Your task to perform on an android device: View the shopping cart on bestbuy. Search for "macbook air" on bestbuy, select the first entry, and add it to the cart. Image 0: 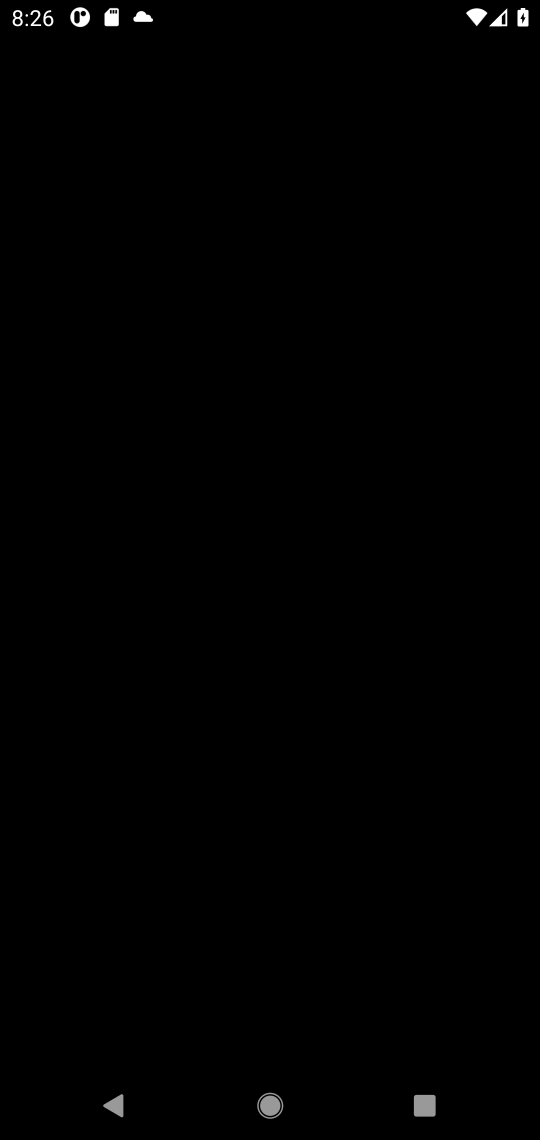
Step 0: press home button
Your task to perform on an android device: View the shopping cart on bestbuy. Search for "macbook air" on bestbuy, select the first entry, and add it to the cart. Image 1: 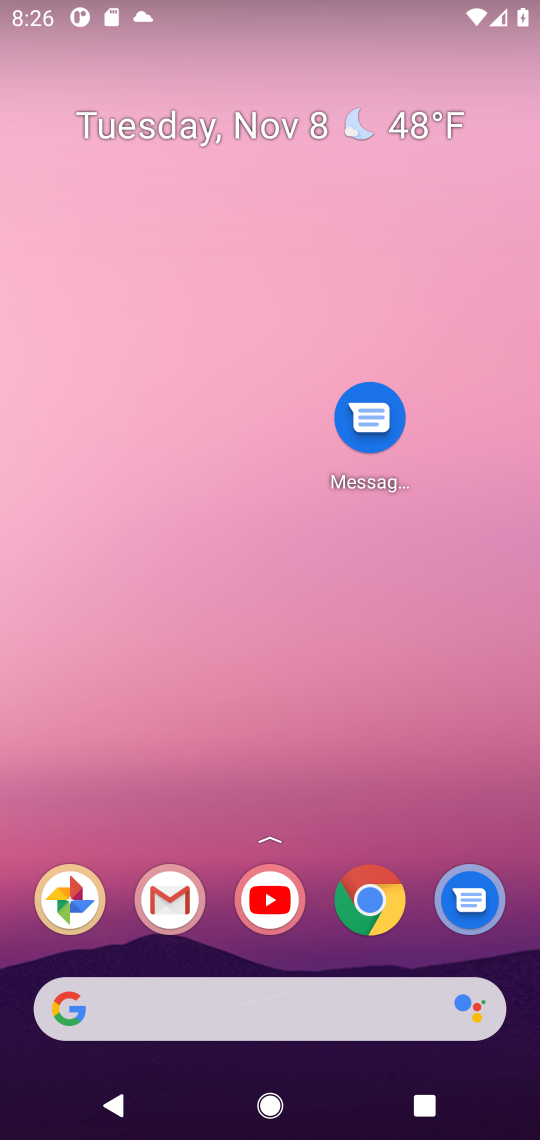
Step 1: drag from (180, 1063) to (247, 493)
Your task to perform on an android device: View the shopping cart on bestbuy. Search for "macbook air" on bestbuy, select the first entry, and add it to the cart. Image 2: 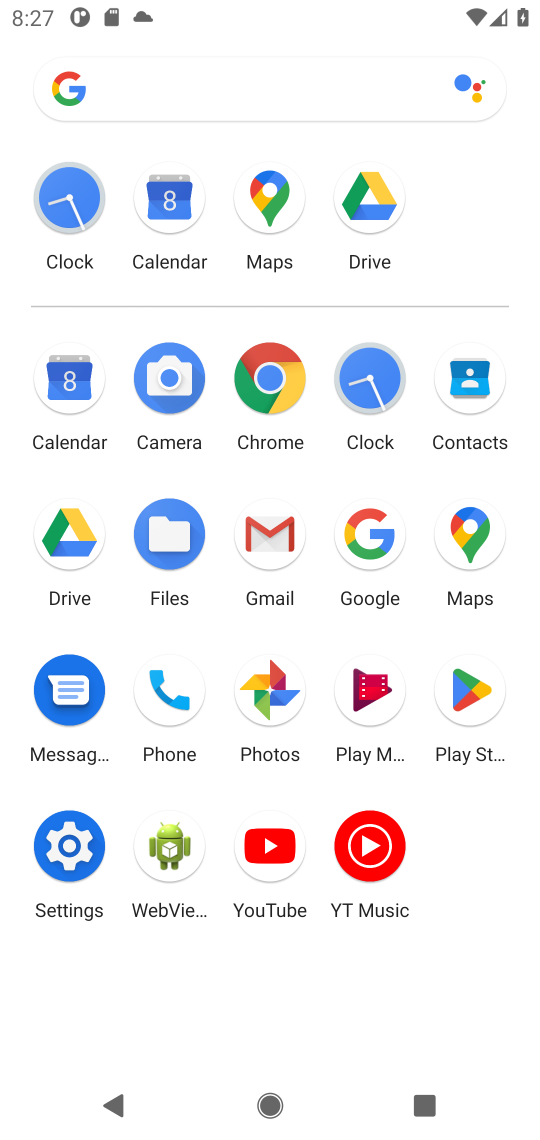
Step 2: click (355, 524)
Your task to perform on an android device: View the shopping cart on bestbuy. Search for "macbook air" on bestbuy, select the first entry, and add it to the cart. Image 3: 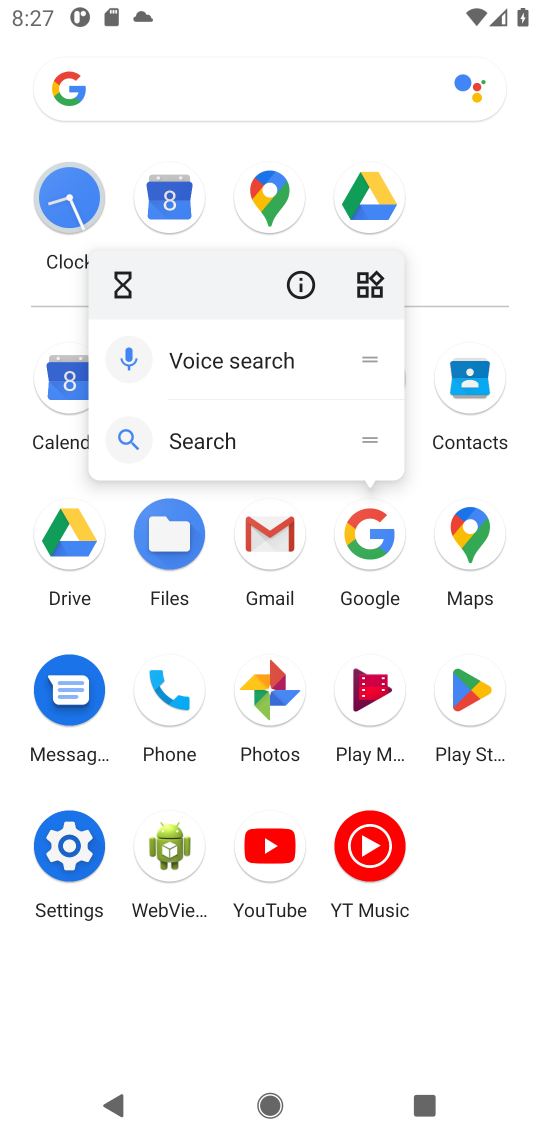
Step 3: click (366, 526)
Your task to perform on an android device: View the shopping cart on bestbuy. Search for "macbook air" on bestbuy, select the first entry, and add it to the cart. Image 4: 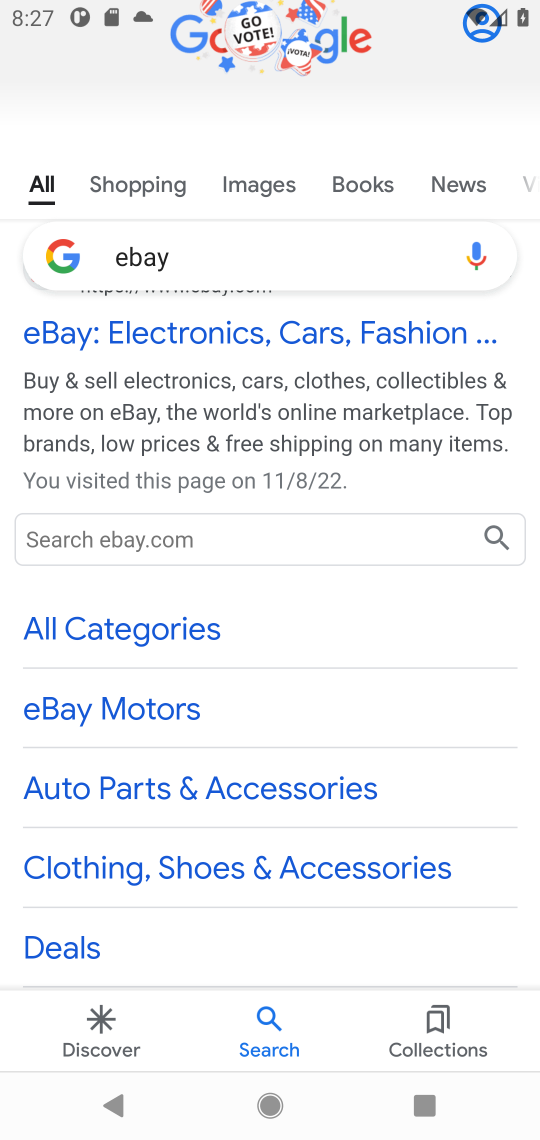
Step 4: click (182, 222)
Your task to perform on an android device: View the shopping cart on bestbuy. Search for "macbook air" on bestbuy, select the first entry, and add it to the cart. Image 5: 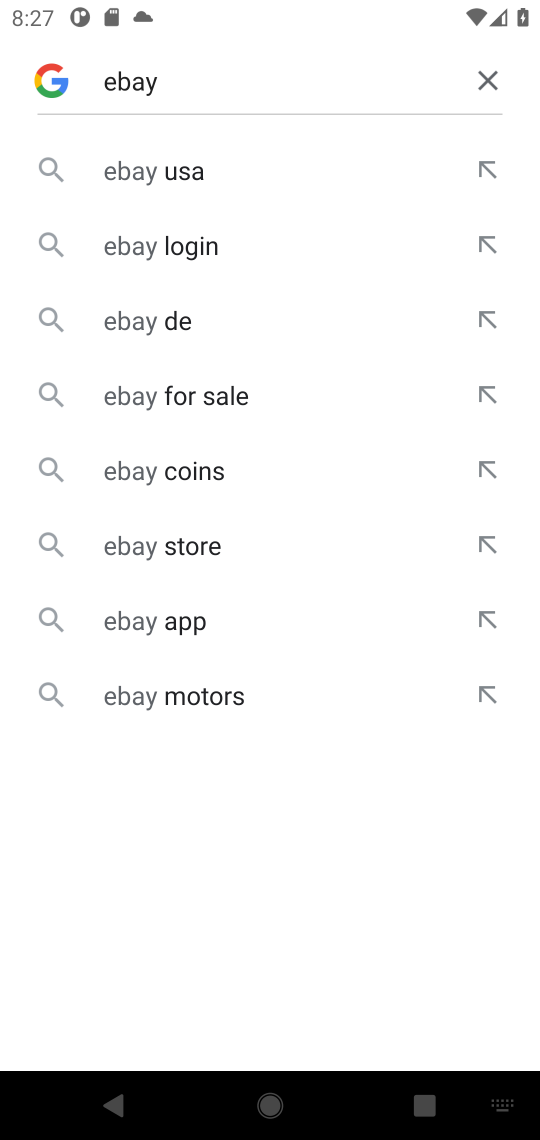
Step 5: click (484, 70)
Your task to perform on an android device: View the shopping cart on bestbuy. Search for "macbook air" on bestbuy, select the first entry, and add it to the cart. Image 6: 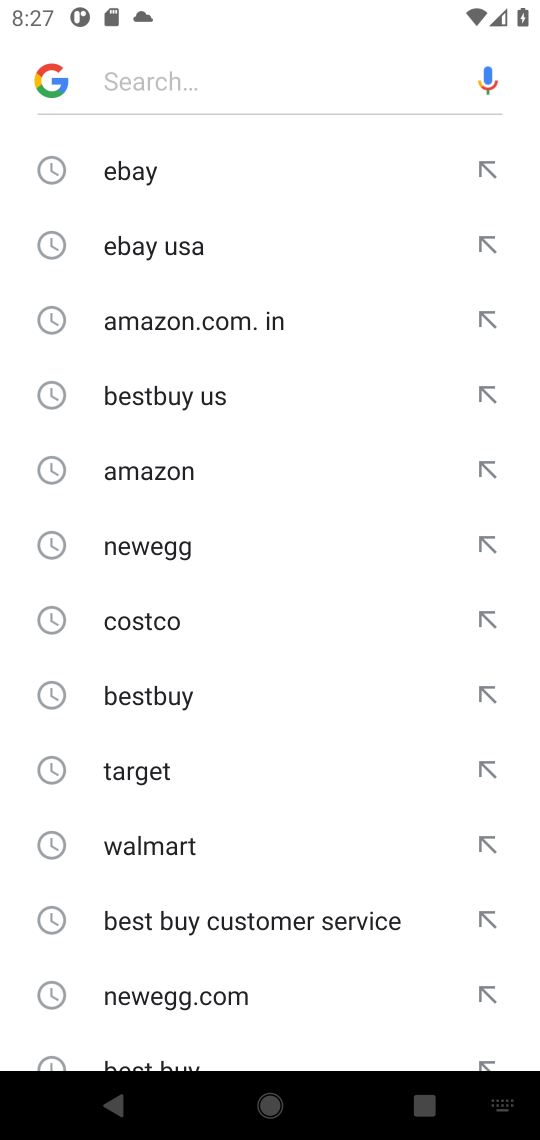
Step 6: click (193, 48)
Your task to perform on an android device: View the shopping cart on bestbuy. Search for "macbook air" on bestbuy, select the first entry, and add it to the cart. Image 7: 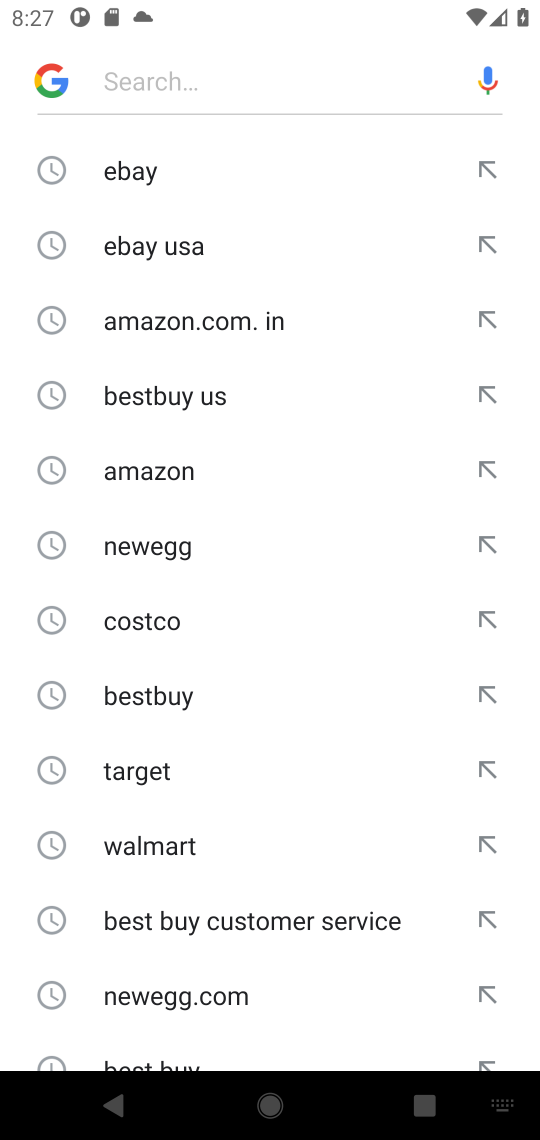
Step 7: type "bestbuy "
Your task to perform on an android device: View the shopping cart on bestbuy. Search for "macbook air" on bestbuy, select the first entry, and add it to the cart. Image 8: 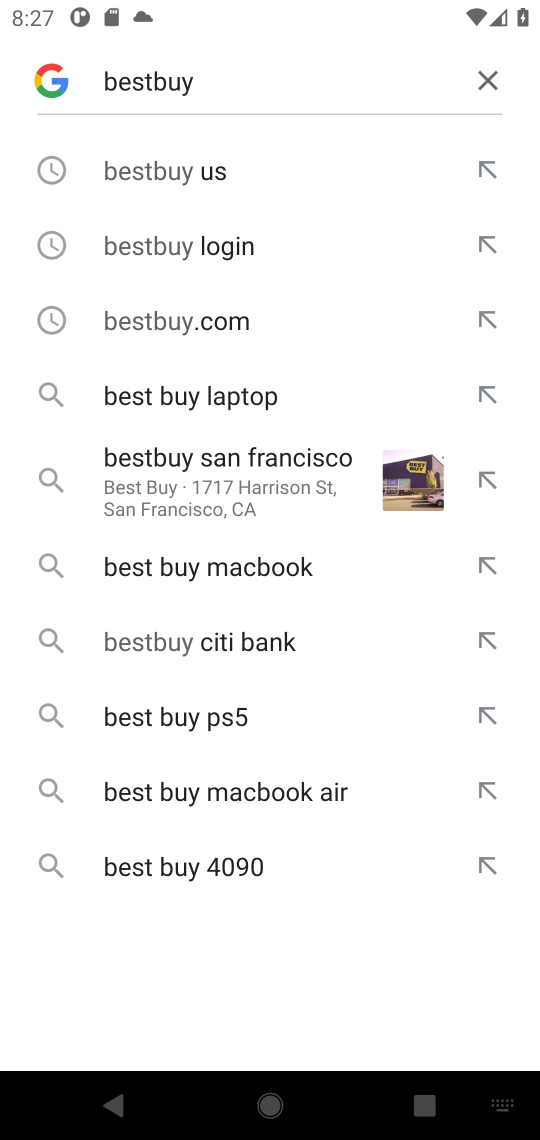
Step 8: click (212, 166)
Your task to perform on an android device: View the shopping cart on bestbuy. Search for "macbook air" on bestbuy, select the first entry, and add it to the cart. Image 9: 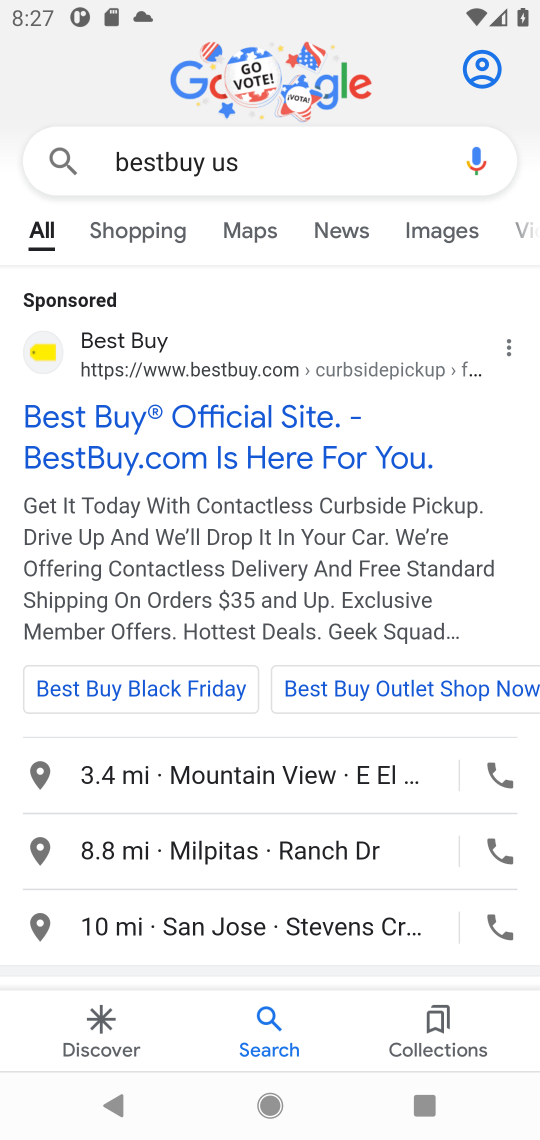
Step 9: click (53, 343)
Your task to perform on an android device: View the shopping cart on bestbuy. Search for "macbook air" on bestbuy, select the first entry, and add it to the cart. Image 10: 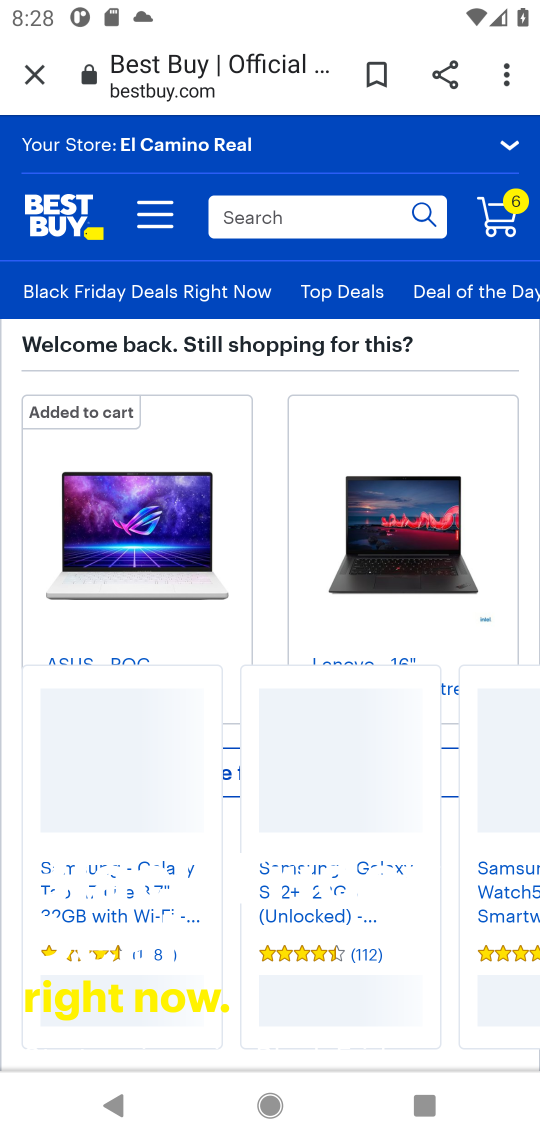
Step 10: click (254, 214)
Your task to perform on an android device: View the shopping cart on bestbuy. Search for "macbook air" on bestbuy, select the first entry, and add it to the cart. Image 11: 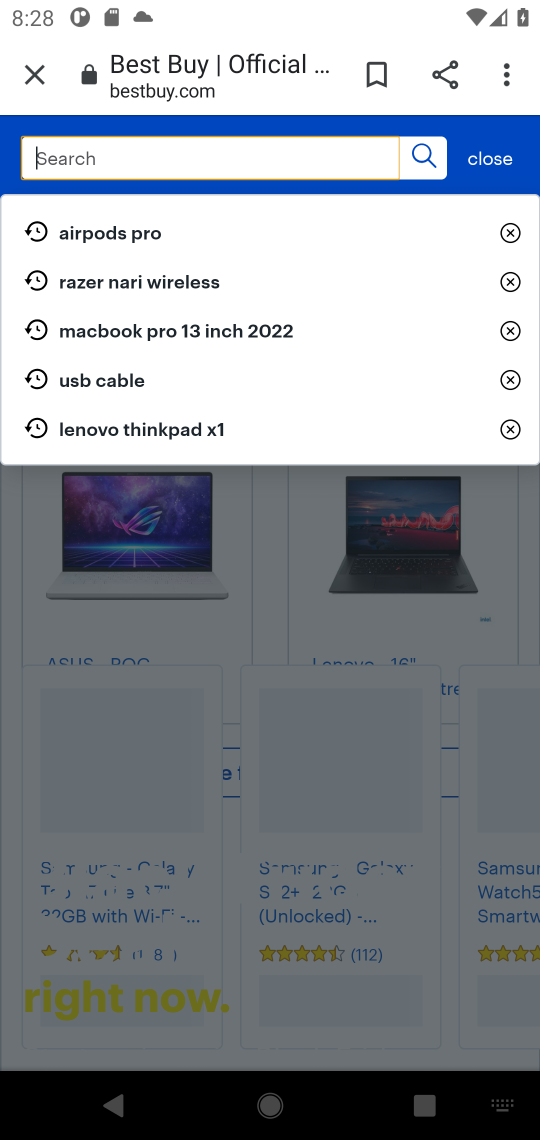
Step 11: click (195, 138)
Your task to perform on an android device: View the shopping cart on bestbuy. Search for "macbook air" on bestbuy, select the first entry, and add it to the cart. Image 12: 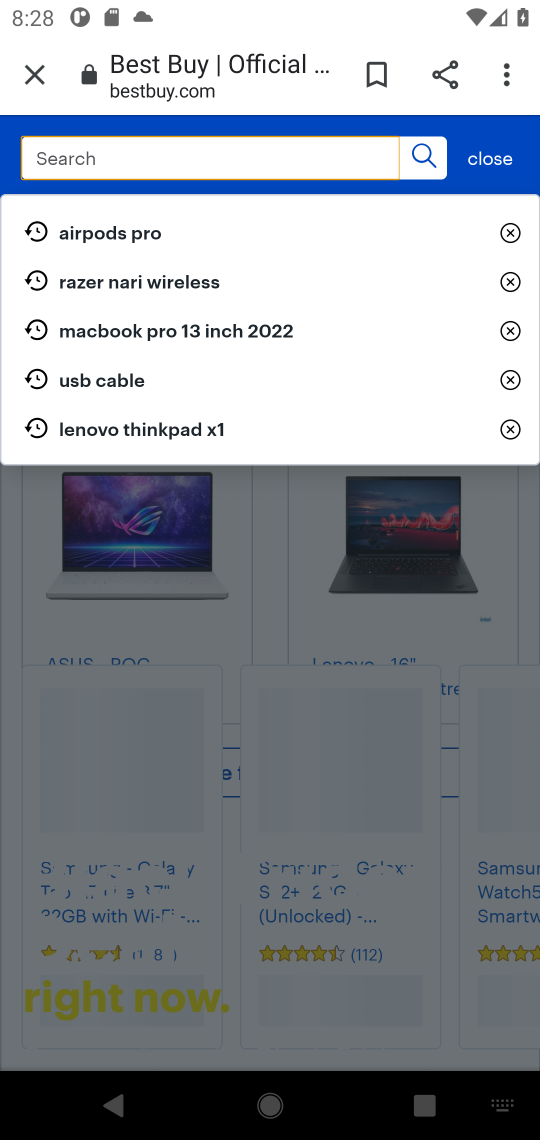
Step 12: click (195, 141)
Your task to perform on an android device: View the shopping cart on bestbuy. Search for "macbook air" on bestbuy, select the first entry, and add it to the cart. Image 13: 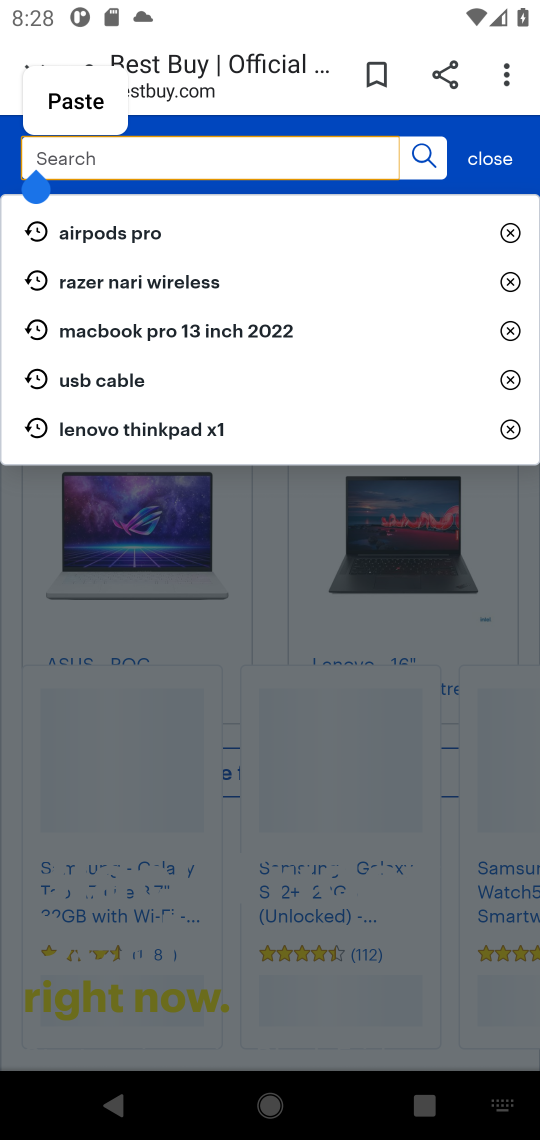
Step 13: type "macbook air" "
Your task to perform on an android device: View the shopping cart on bestbuy. Search for "macbook air" on bestbuy, select the first entry, and add it to the cart. Image 14: 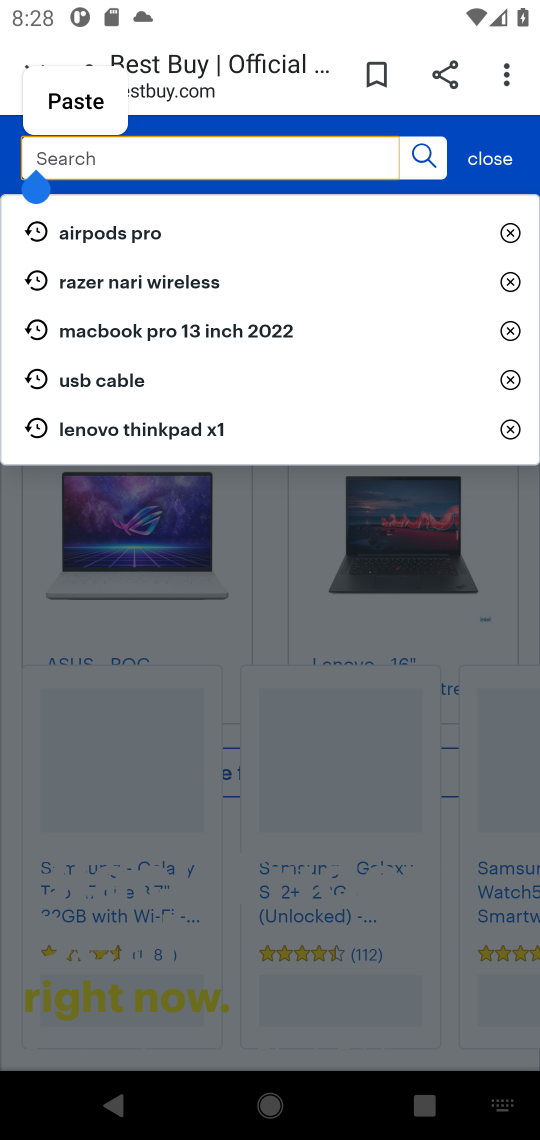
Step 14: click (75, 103)
Your task to perform on an android device: View the shopping cart on bestbuy. Search for "macbook air" on bestbuy, select the first entry, and add it to the cart. Image 15: 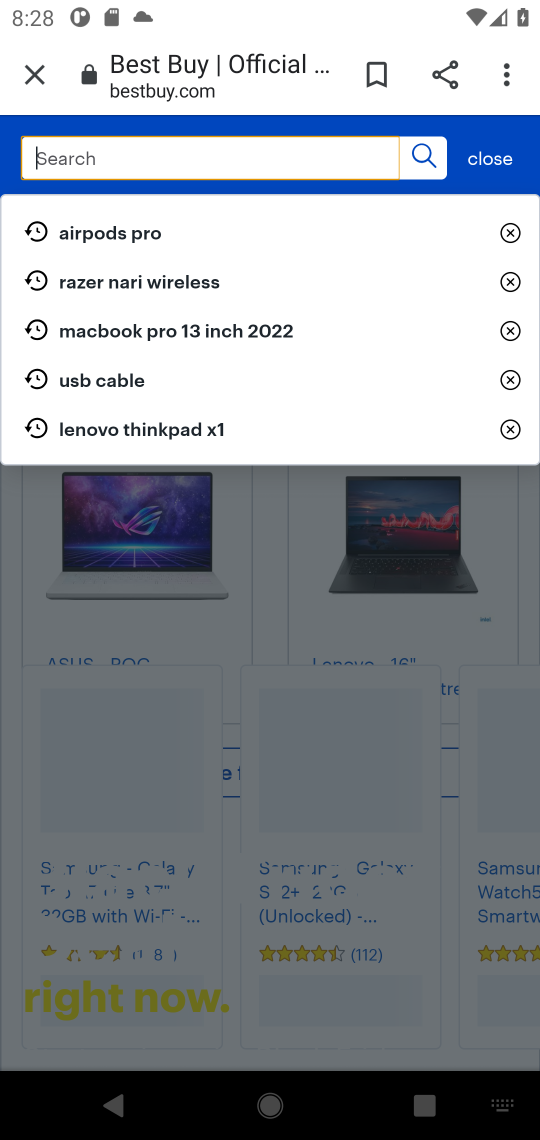
Step 15: click (211, 142)
Your task to perform on an android device: View the shopping cart on bestbuy. Search for "macbook air" on bestbuy, select the first entry, and add it to the cart. Image 16: 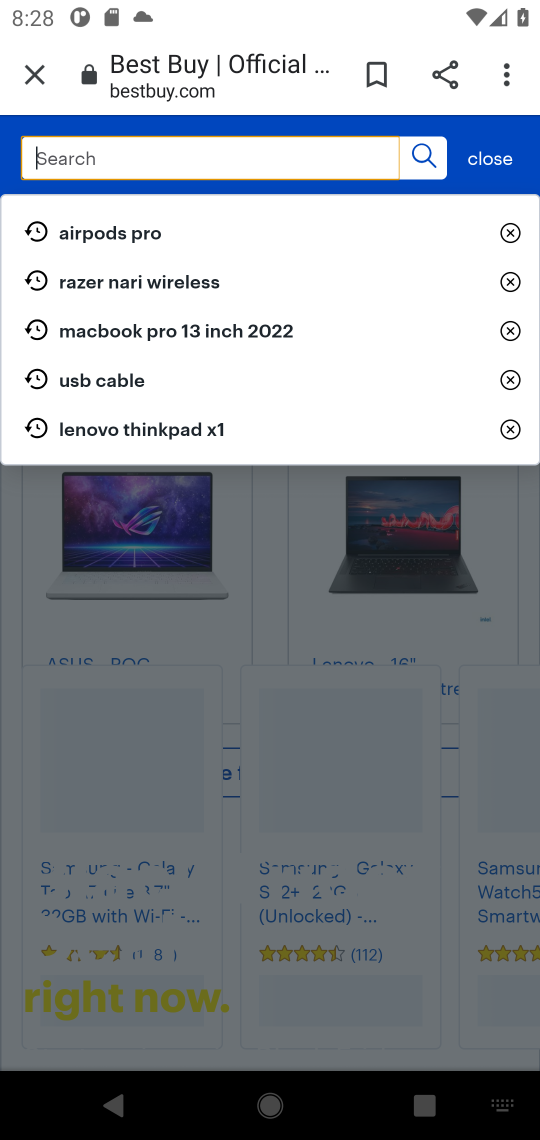
Step 16: type "macbook air "
Your task to perform on an android device: View the shopping cart on bestbuy. Search for "macbook air" on bestbuy, select the first entry, and add it to the cart. Image 17: 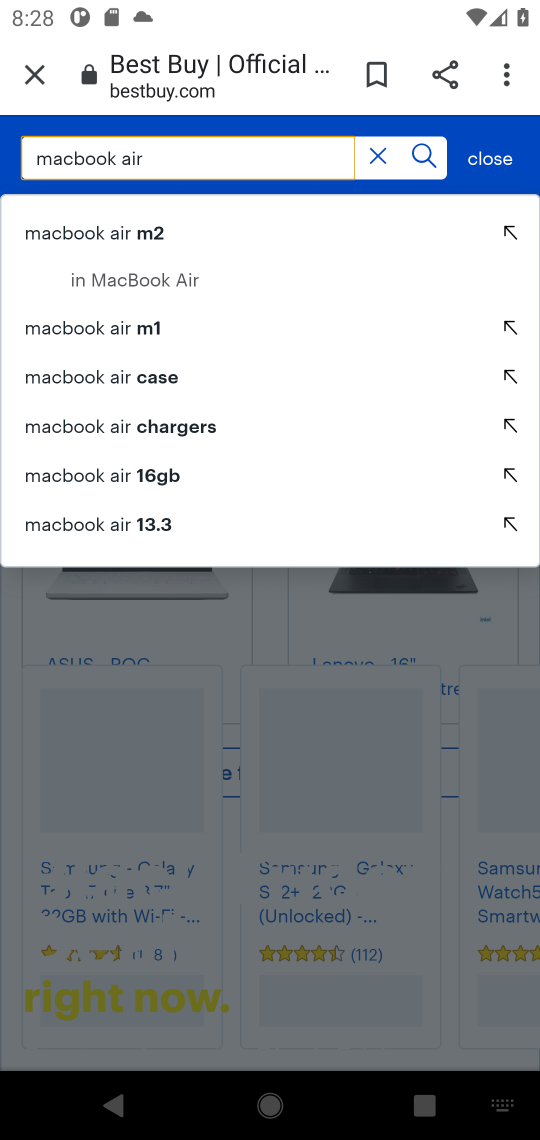
Step 17: click (136, 323)
Your task to perform on an android device: View the shopping cart on bestbuy. Search for "macbook air" on bestbuy, select the first entry, and add it to the cart. Image 18: 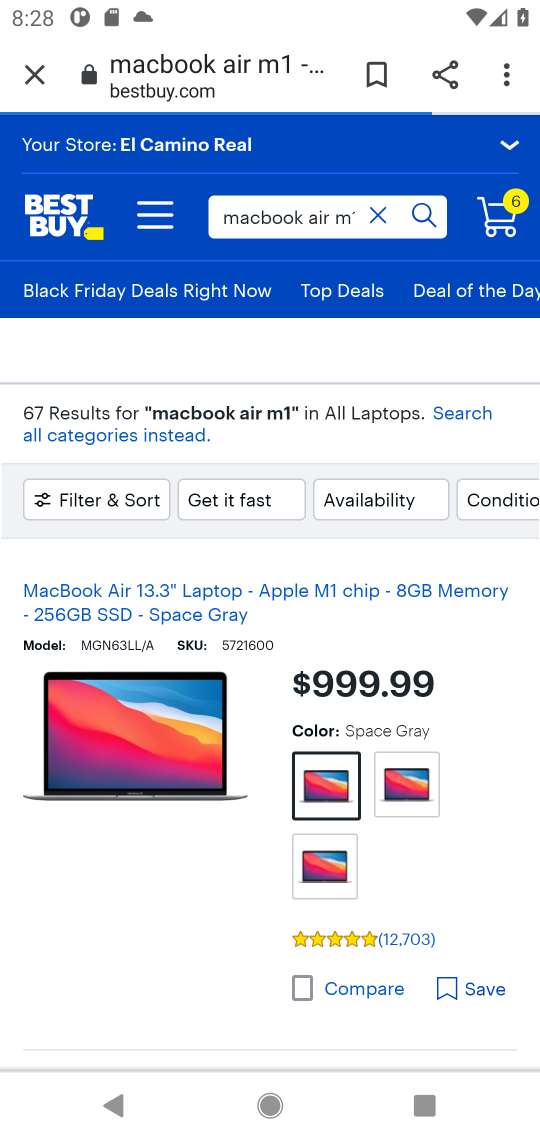
Step 18: drag from (140, 895) to (240, 488)
Your task to perform on an android device: View the shopping cart on bestbuy. Search for "macbook air" on bestbuy, select the first entry, and add it to the cart. Image 19: 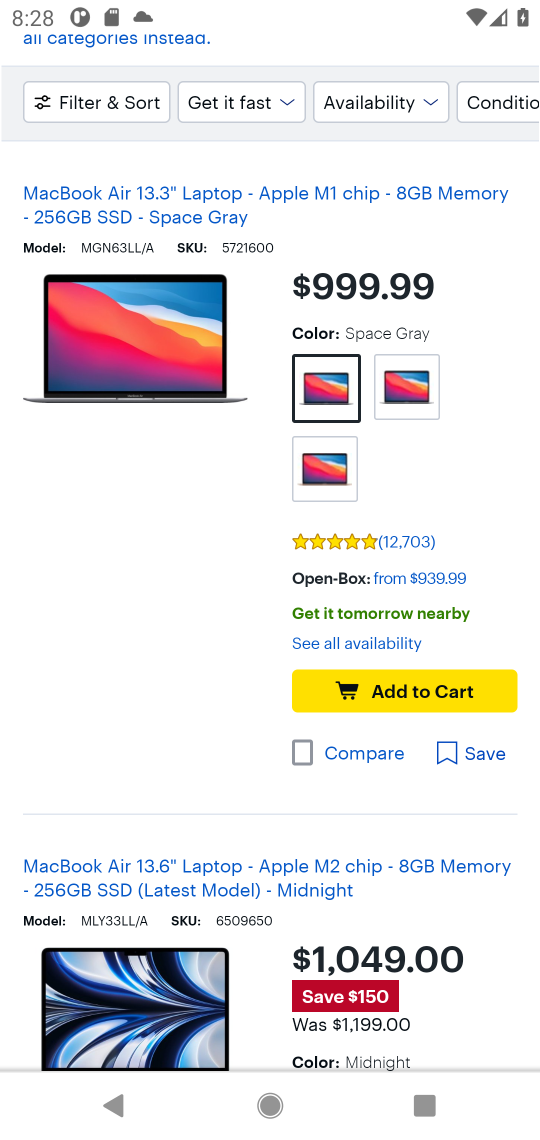
Step 19: click (387, 683)
Your task to perform on an android device: View the shopping cart on bestbuy. Search for "macbook air" on bestbuy, select the first entry, and add it to the cart. Image 20: 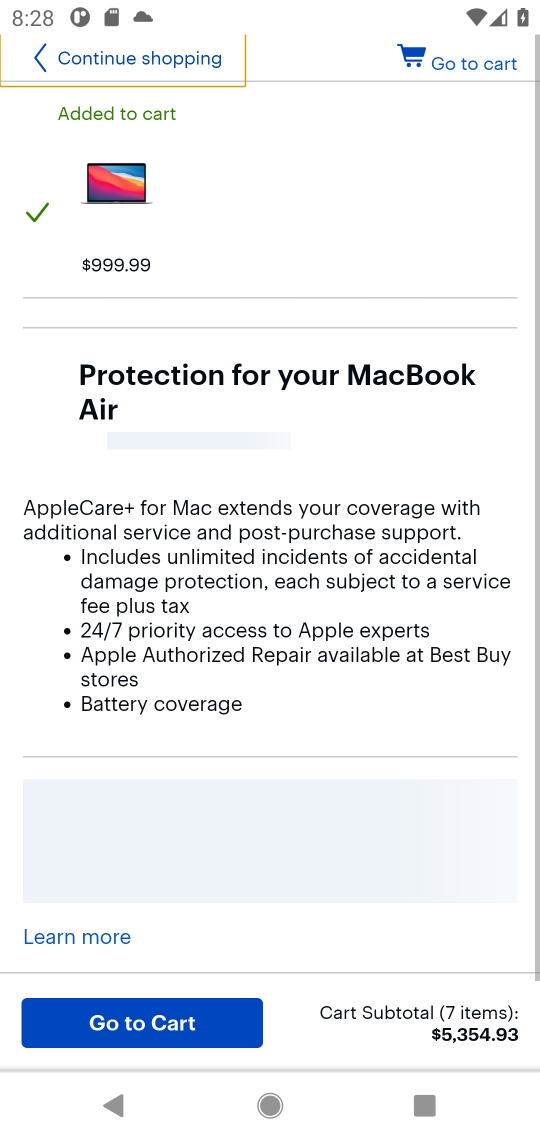
Step 20: task complete